Your task to perform on an android device: Open CNN.com Image 0: 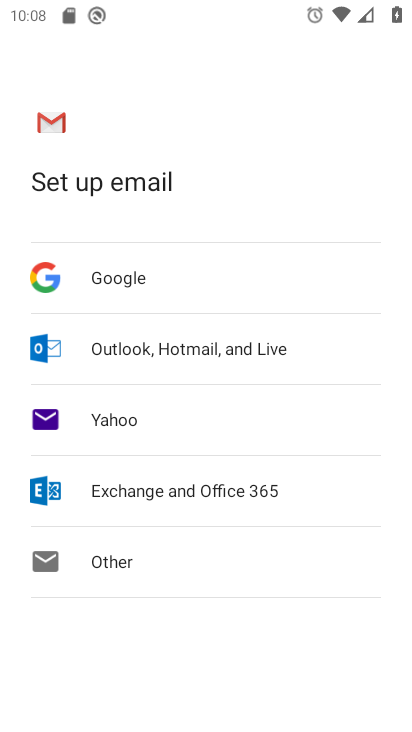
Step 0: press home button
Your task to perform on an android device: Open CNN.com Image 1: 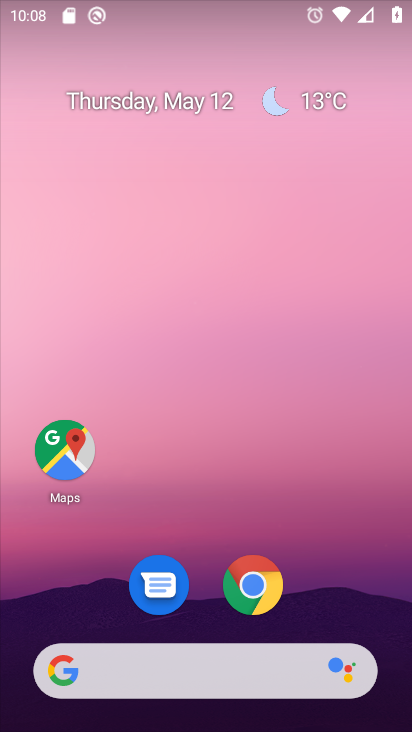
Step 1: click (158, 673)
Your task to perform on an android device: Open CNN.com Image 2: 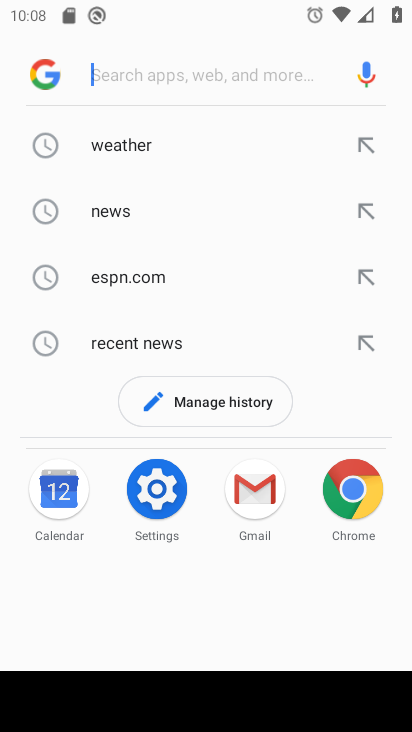
Step 2: type "cnn.com"
Your task to perform on an android device: Open CNN.com Image 3: 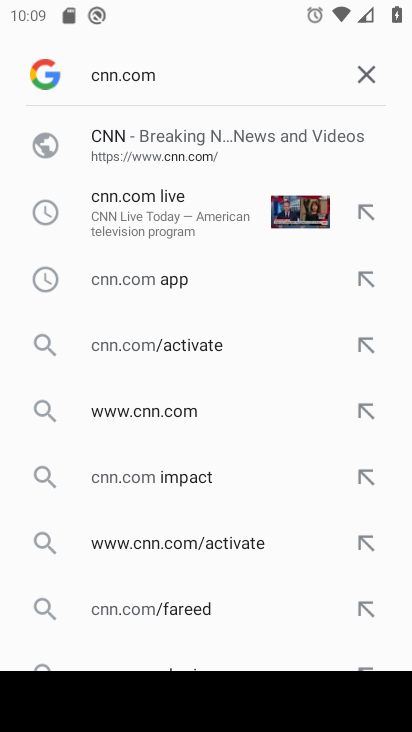
Step 3: click (108, 140)
Your task to perform on an android device: Open CNN.com Image 4: 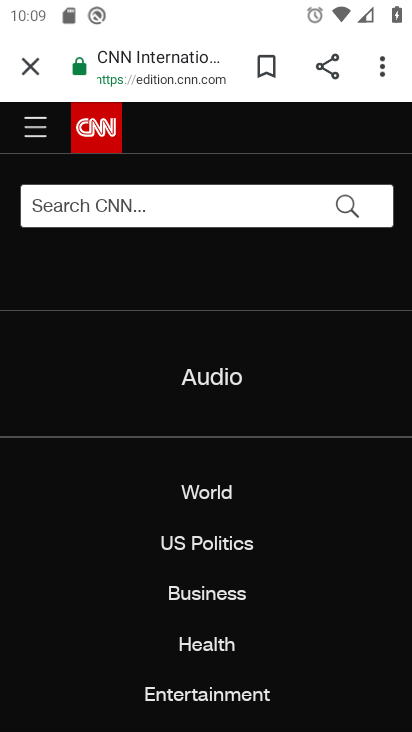
Step 4: task complete